Your task to perform on an android device: Open Google Chrome Image 0: 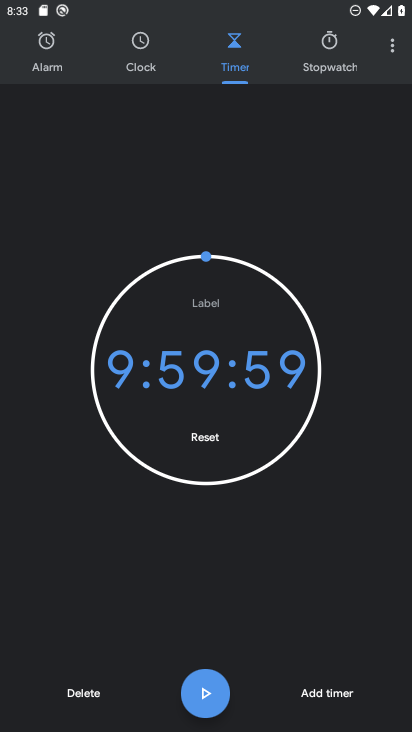
Step 0: press home button
Your task to perform on an android device: Open Google Chrome Image 1: 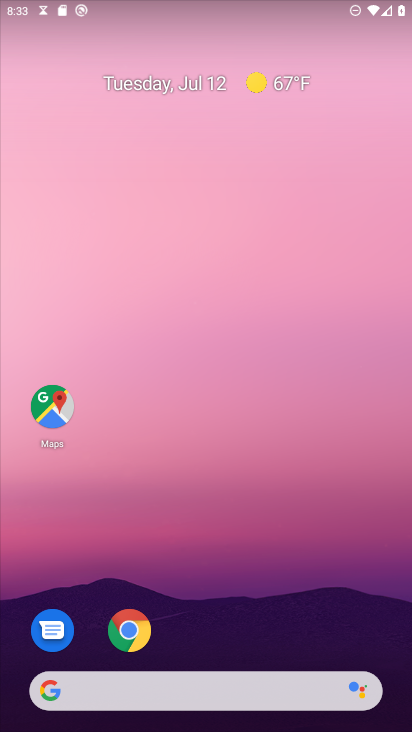
Step 1: click (124, 637)
Your task to perform on an android device: Open Google Chrome Image 2: 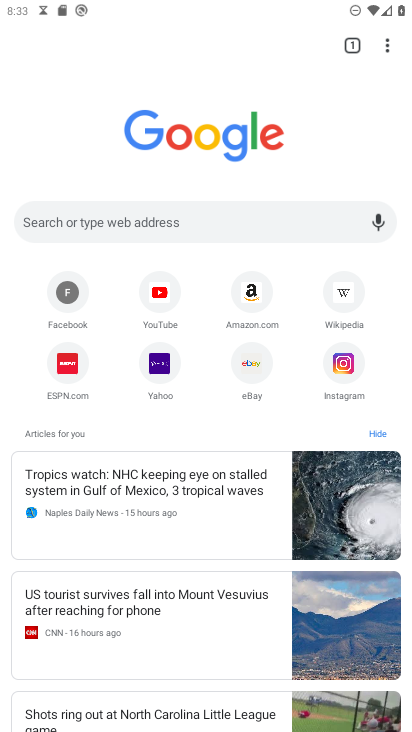
Step 2: task complete